Your task to perform on an android device: turn off smart reply in the gmail app Image 0: 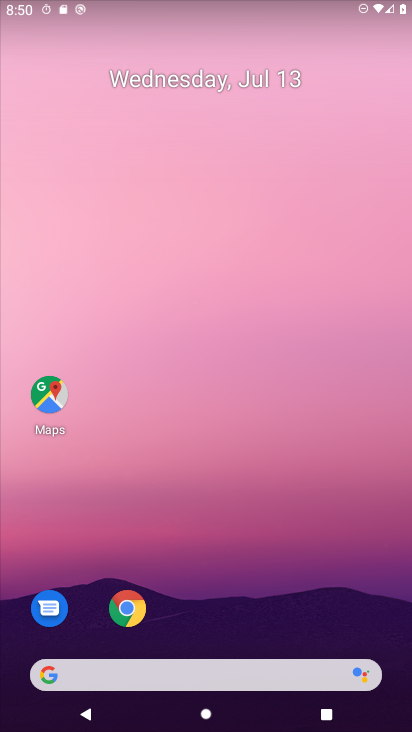
Step 0: drag from (271, 695) to (265, 240)
Your task to perform on an android device: turn off smart reply in the gmail app Image 1: 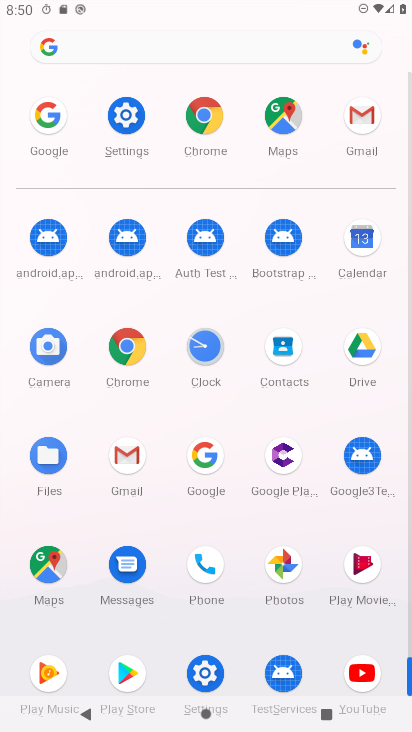
Step 1: click (121, 464)
Your task to perform on an android device: turn off smart reply in the gmail app Image 2: 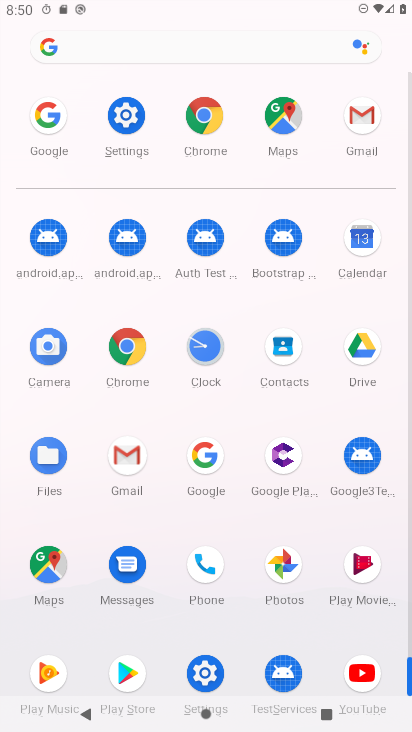
Step 2: click (122, 463)
Your task to perform on an android device: turn off smart reply in the gmail app Image 3: 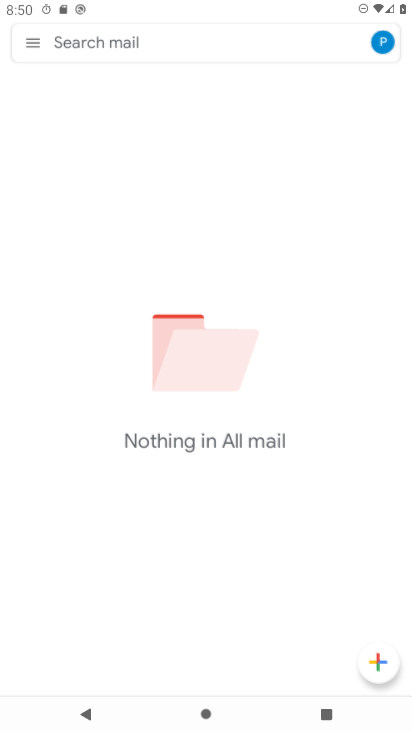
Step 3: click (124, 463)
Your task to perform on an android device: turn off smart reply in the gmail app Image 4: 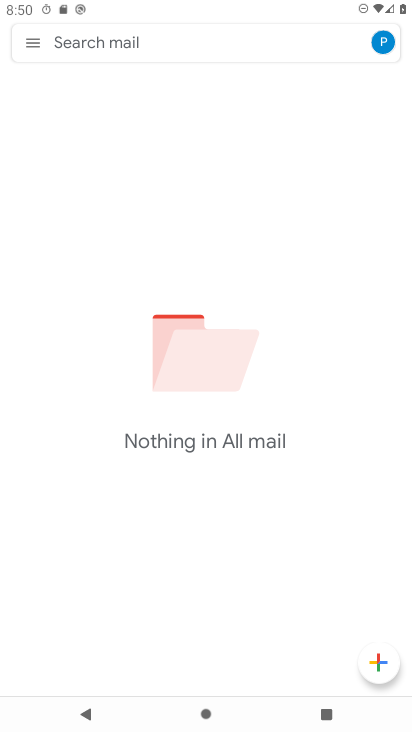
Step 4: click (126, 464)
Your task to perform on an android device: turn off smart reply in the gmail app Image 5: 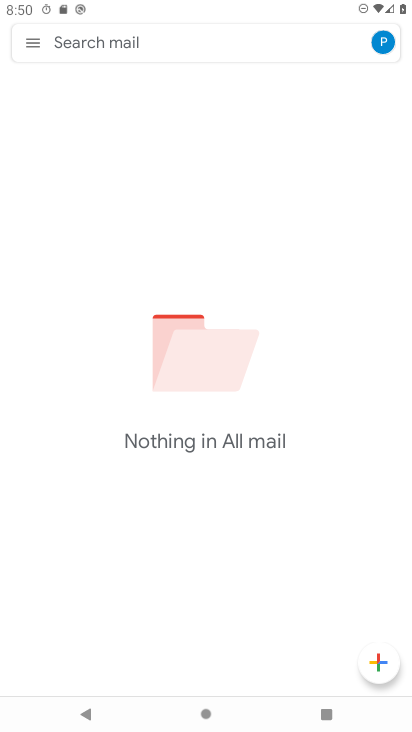
Step 5: click (30, 36)
Your task to perform on an android device: turn off smart reply in the gmail app Image 6: 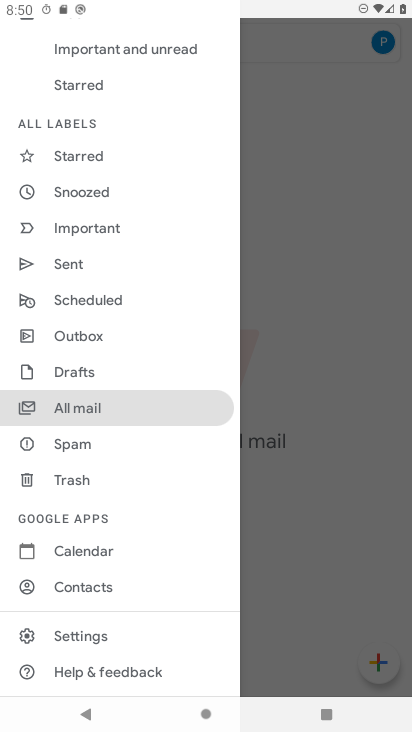
Step 6: click (66, 639)
Your task to perform on an android device: turn off smart reply in the gmail app Image 7: 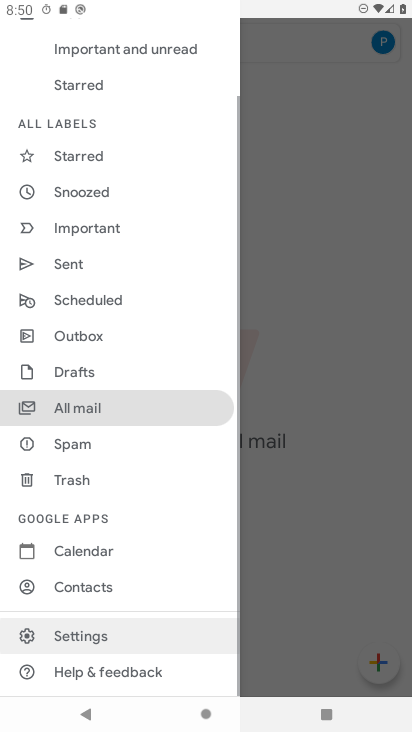
Step 7: click (66, 639)
Your task to perform on an android device: turn off smart reply in the gmail app Image 8: 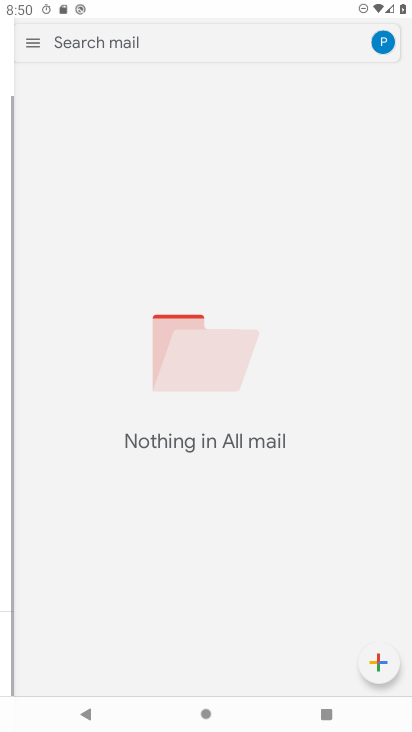
Step 8: click (67, 639)
Your task to perform on an android device: turn off smart reply in the gmail app Image 9: 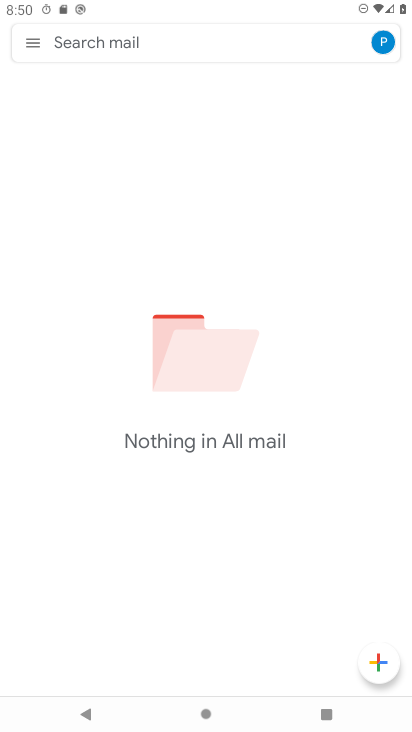
Step 9: click (70, 639)
Your task to perform on an android device: turn off smart reply in the gmail app Image 10: 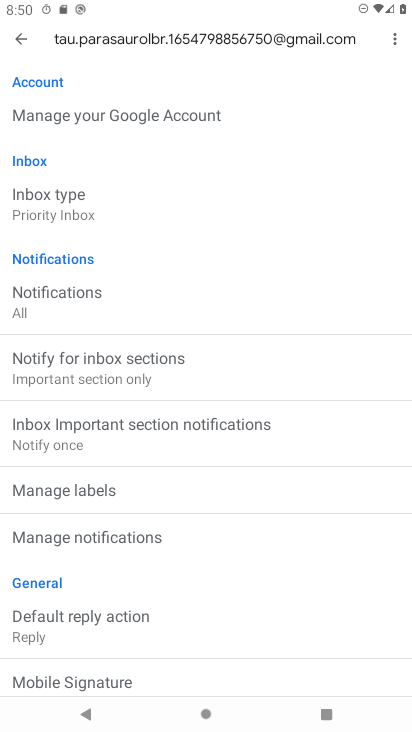
Step 10: drag from (121, 538) to (143, 301)
Your task to perform on an android device: turn off smart reply in the gmail app Image 11: 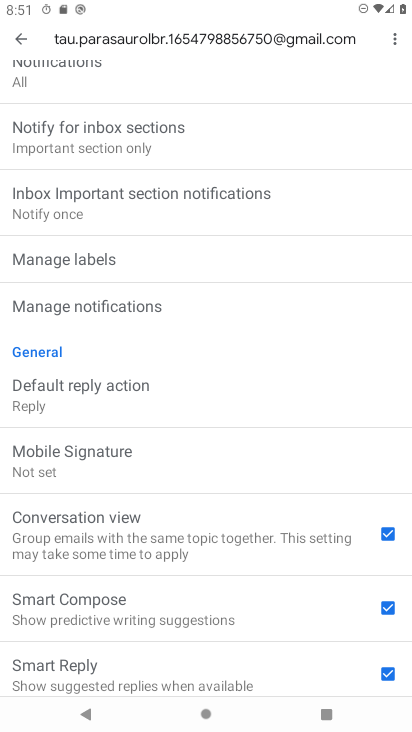
Step 11: click (393, 676)
Your task to perform on an android device: turn off smart reply in the gmail app Image 12: 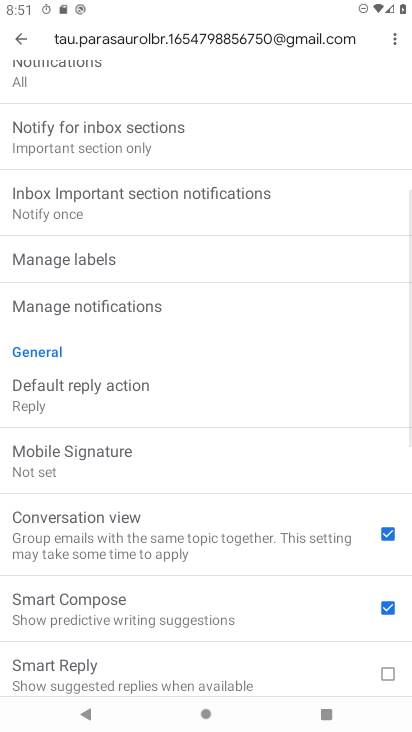
Step 12: task complete